Your task to perform on an android device: Open Google Chrome Image 0: 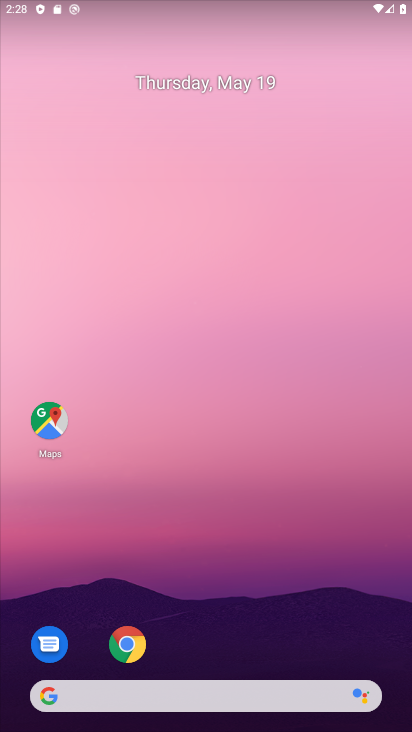
Step 0: drag from (301, 625) to (306, 207)
Your task to perform on an android device: Open Google Chrome Image 1: 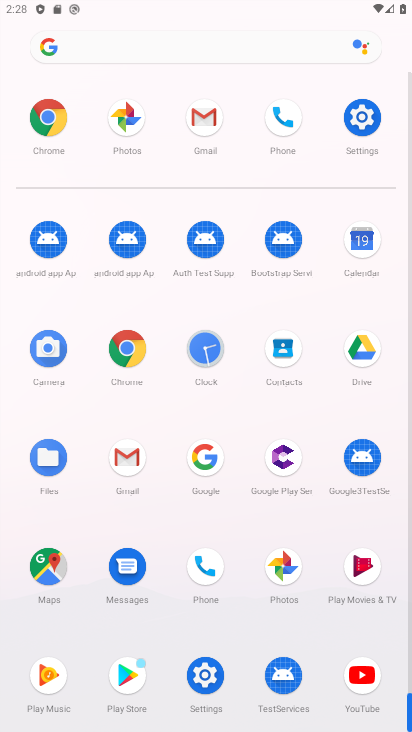
Step 1: click (127, 353)
Your task to perform on an android device: Open Google Chrome Image 2: 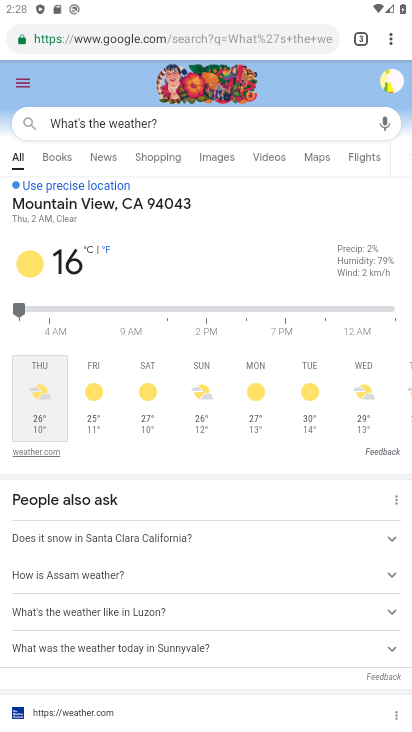
Step 2: press home button
Your task to perform on an android device: Open Google Chrome Image 3: 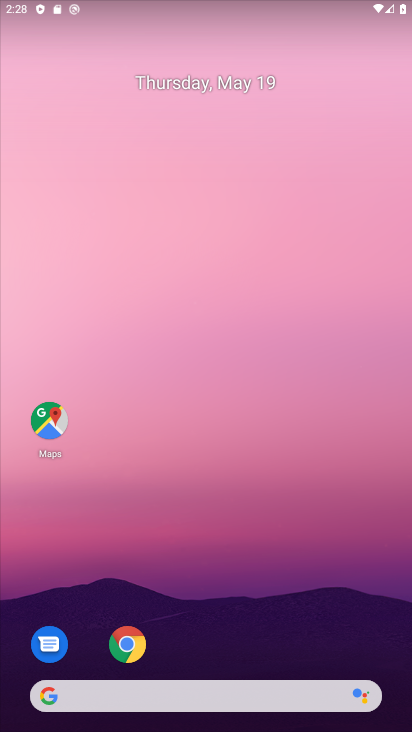
Step 3: drag from (198, 609) to (277, 281)
Your task to perform on an android device: Open Google Chrome Image 4: 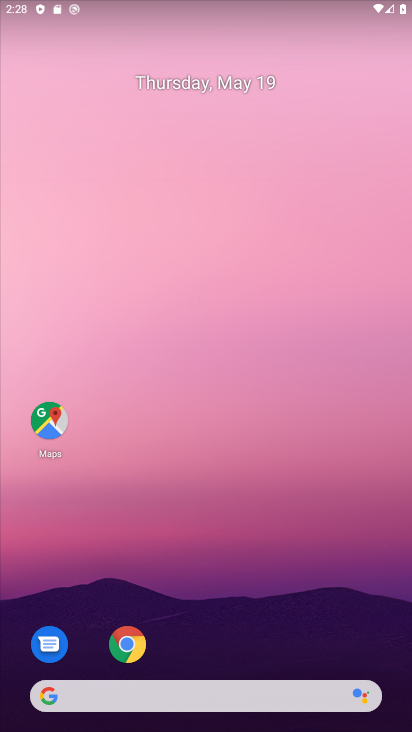
Step 4: drag from (211, 620) to (264, 252)
Your task to perform on an android device: Open Google Chrome Image 5: 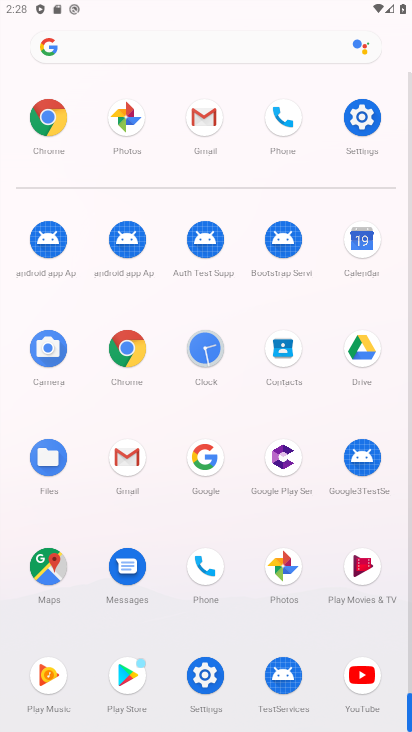
Step 5: click (204, 450)
Your task to perform on an android device: Open Google Chrome Image 6: 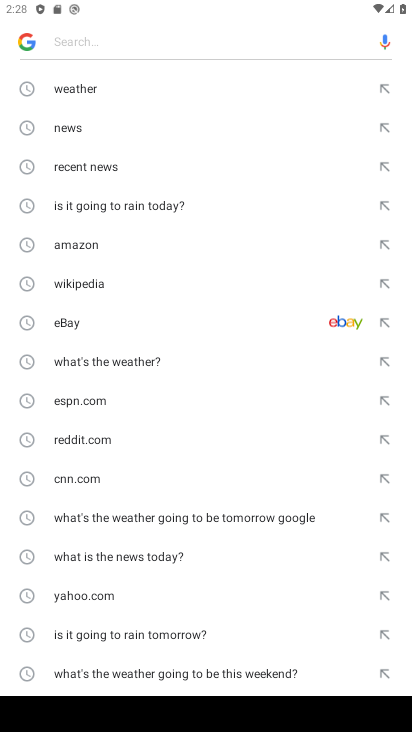
Step 6: task complete